Your task to perform on an android device: Open the Play Movies app and select the watchlist tab. Image 0: 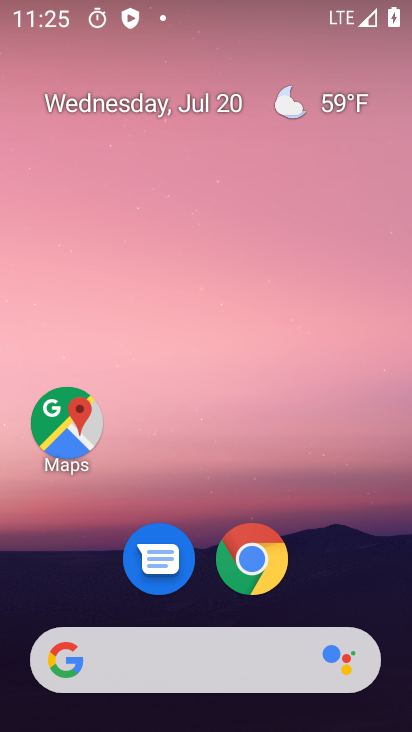
Step 0: drag from (180, 613) to (257, 18)
Your task to perform on an android device: Open the Play Movies app and select the watchlist tab. Image 1: 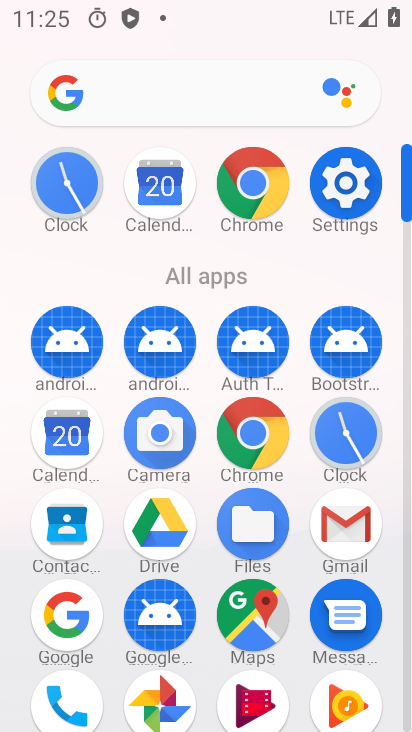
Step 1: click (242, 700)
Your task to perform on an android device: Open the Play Movies app and select the watchlist tab. Image 2: 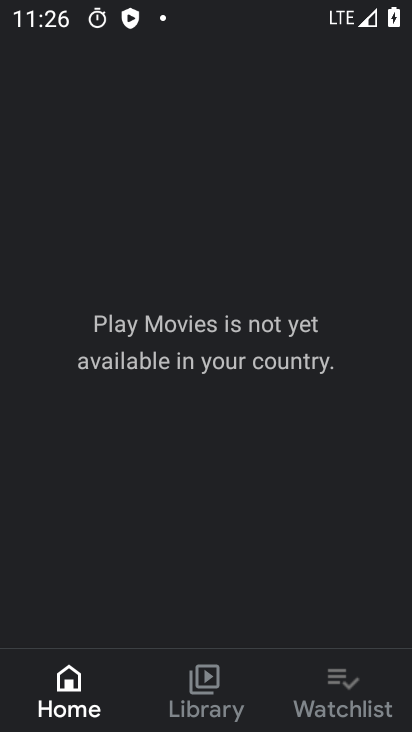
Step 2: click (349, 692)
Your task to perform on an android device: Open the Play Movies app and select the watchlist tab. Image 3: 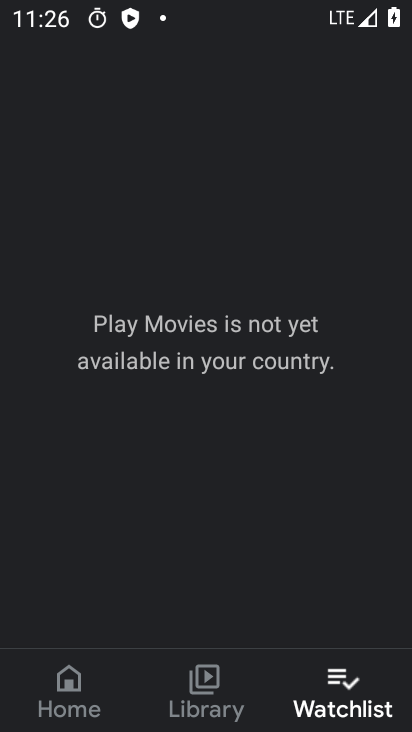
Step 3: task complete